Your task to perform on an android device: search for starred emails in the gmail app Image 0: 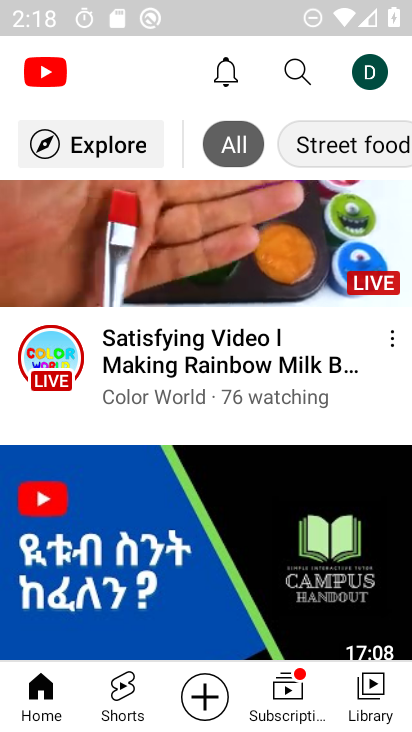
Step 0: press home button
Your task to perform on an android device: search for starred emails in the gmail app Image 1: 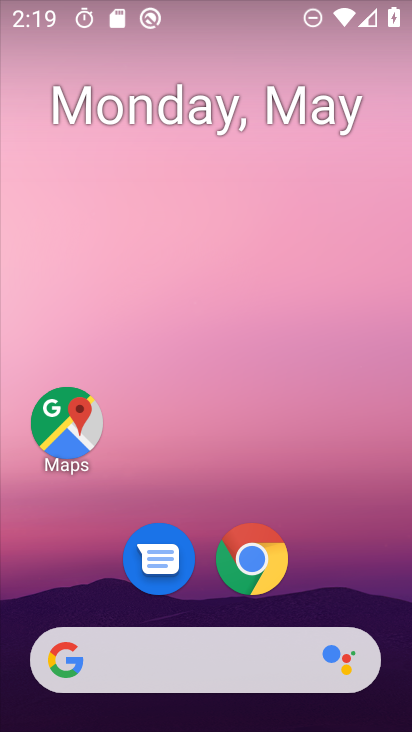
Step 1: drag from (359, 611) to (371, 21)
Your task to perform on an android device: search for starred emails in the gmail app Image 2: 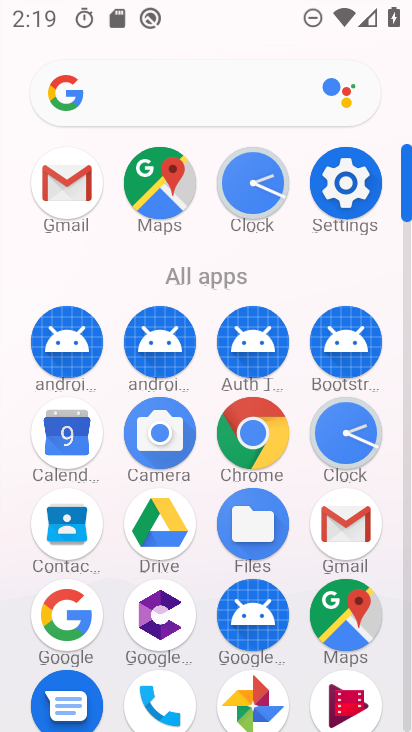
Step 2: click (72, 189)
Your task to perform on an android device: search for starred emails in the gmail app Image 3: 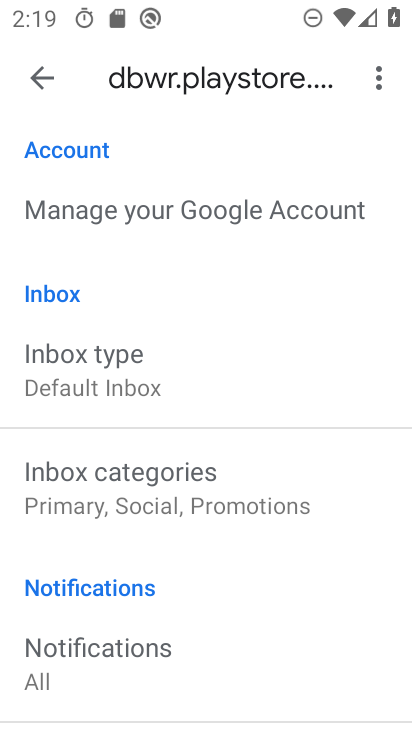
Step 3: click (39, 77)
Your task to perform on an android device: search for starred emails in the gmail app Image 4: 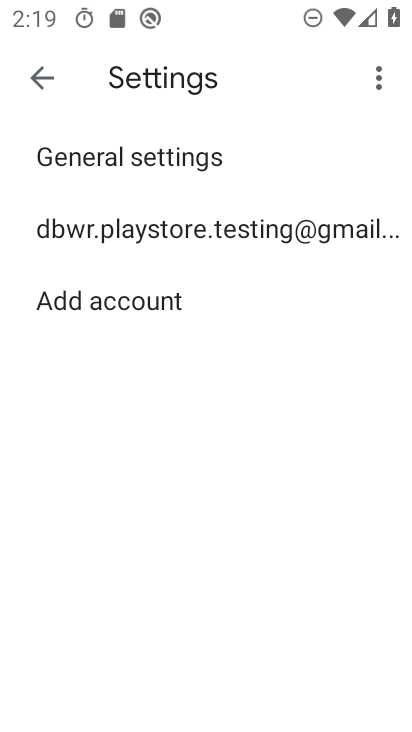
Step 4: click (47, 82)
Your task to perform on an android device: search for starred emails in the gmail app Image 5: 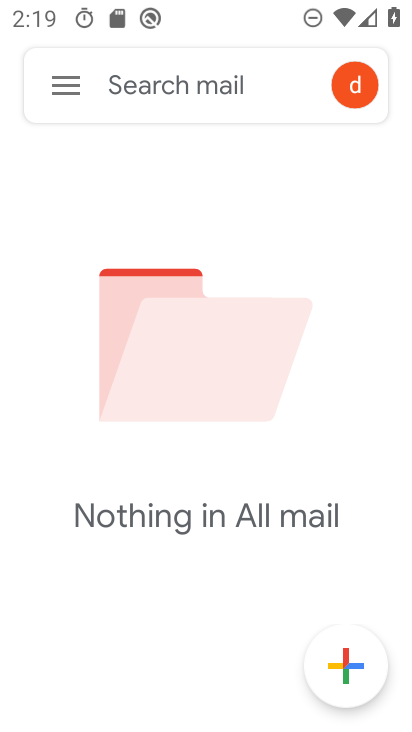
Step 5: click (54, 82)
Your task to perform on an android device: search for starred emails in the gmail app Image 6: 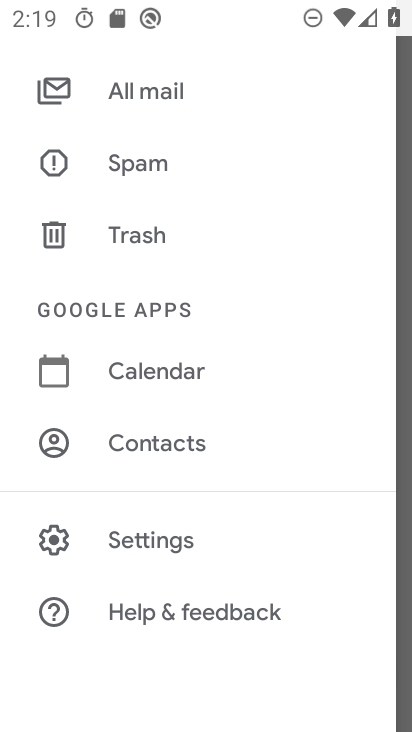
Step 6: drag from (236, 204) to (264, 616)
Your task to perform on an android device: search for starred emails in the gmail app Image 7: 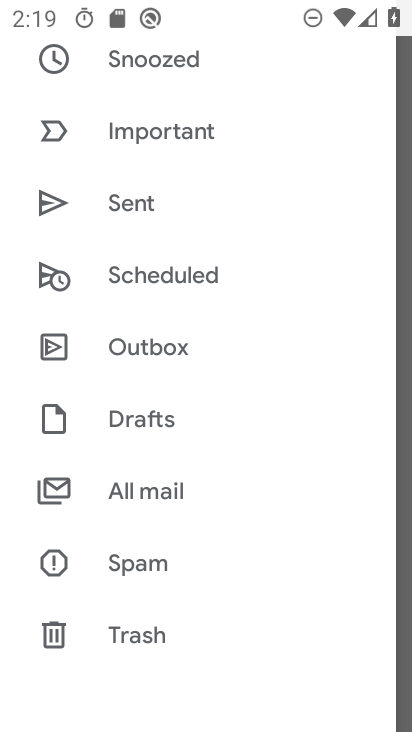
Step 7: drag from (200, 240) to (222, 534)
Your task to perform on an android device: search for starred emails in the gmail app Image 8: 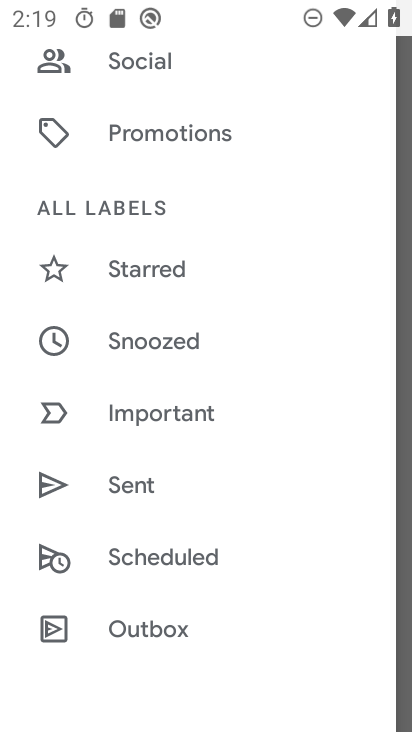
Step 8: click (140, 276)
Your task to perform on an android device: search for starred emails in the gmail app Image 9: 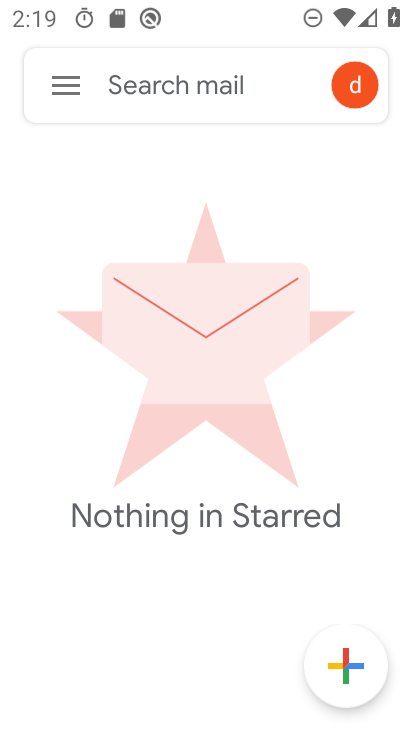
Step 9: task complete